Your task to perform on an android device: Go to location settings Image 0: 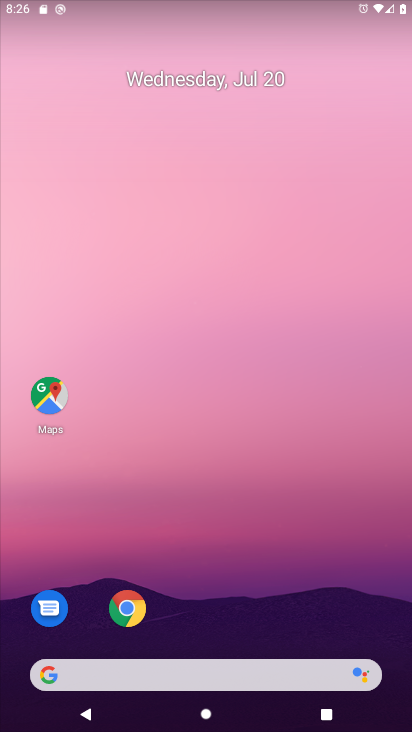
Step 0: drag from (195, 646) to (220, 275)
Your task to perform on an android device: Go to location settings Image 1: 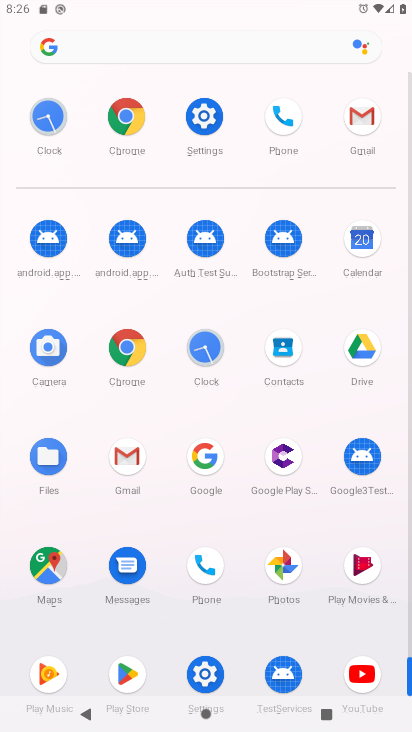
Step 1: click (208, 115)
Your task to perform on an android device: Go to location settings Image 2: 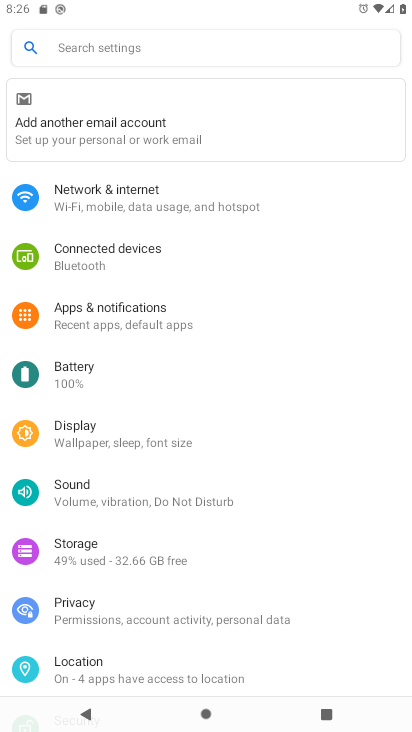
Step 2: drag from (126, 527) to (168, 252)
Your task to perform on an android device: Go to location settings Image 3: 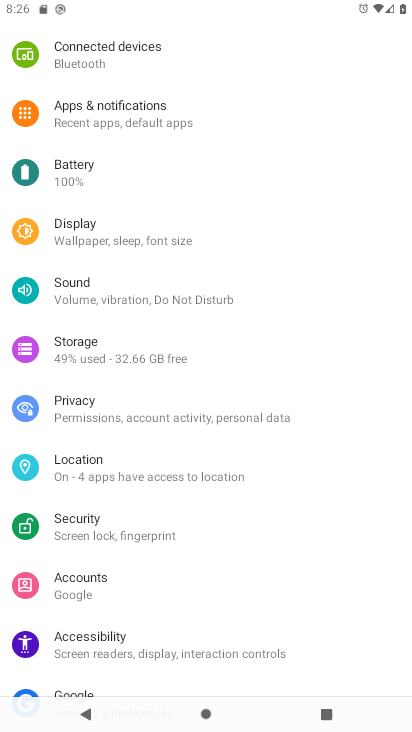
Step 3: click (112, 471)
Your task to perform on an android device: Go to location settings Image 4: 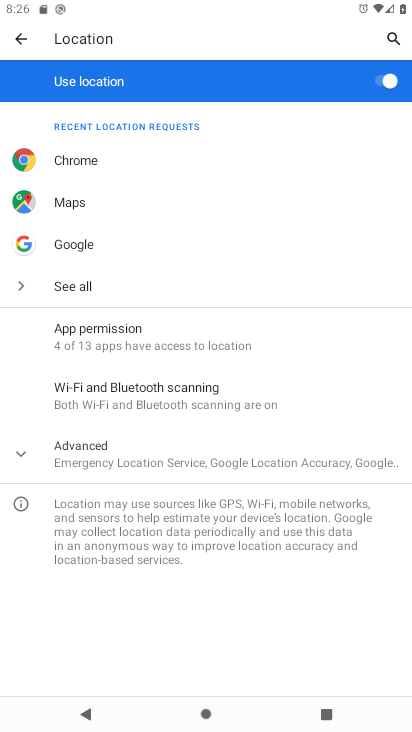
Step 4: task complete